Your task to perform on an android device: Open the stopwatch Image 0: 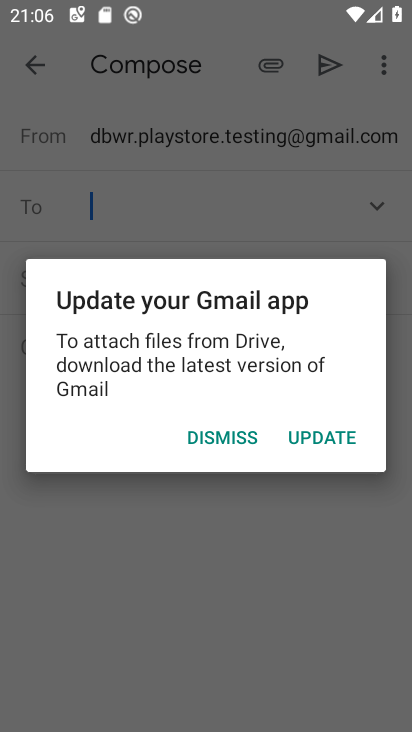
Step 0: press home button
Your task to perform on an android device: Open the stopwatch Image 1: 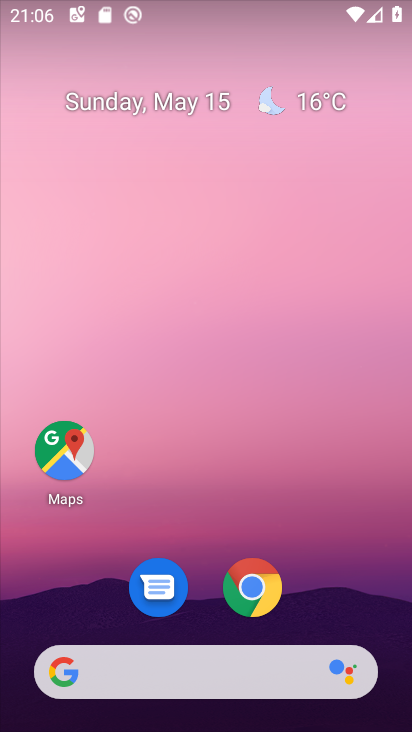
Step 1: drag from (307, 433) to (280, 114)
Your task to perform on an android device: Open the stopwatch Image 2: 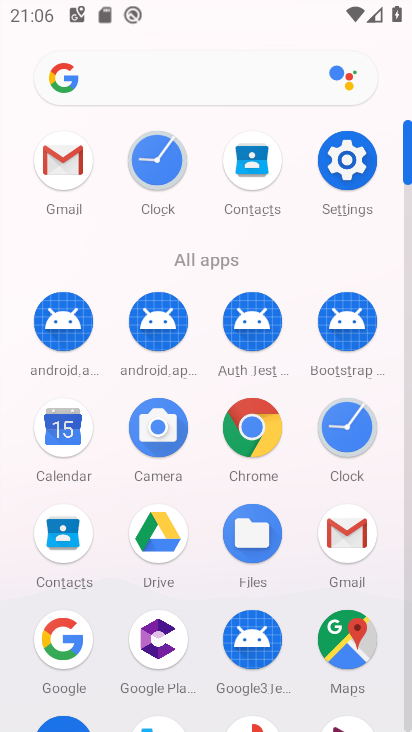
Step 2: click (152, 151)
Your task to perform on an android device: Open the stopwatch Image 3: 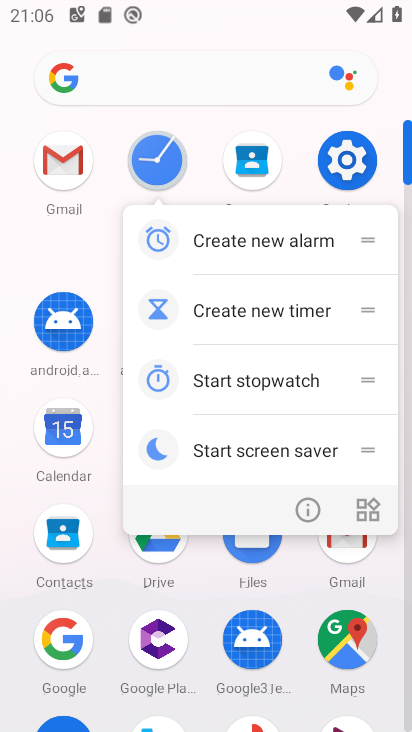
Step 3: click (157, 164)
Your task to perform on an android device: Open the stopwatch Image 4: 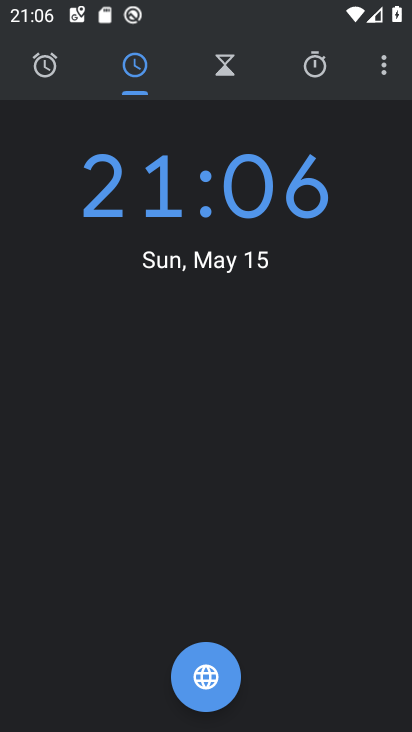
Step 4: click (328, 72)
Your task to perform on an android device: Open the stopwatch Image 5: 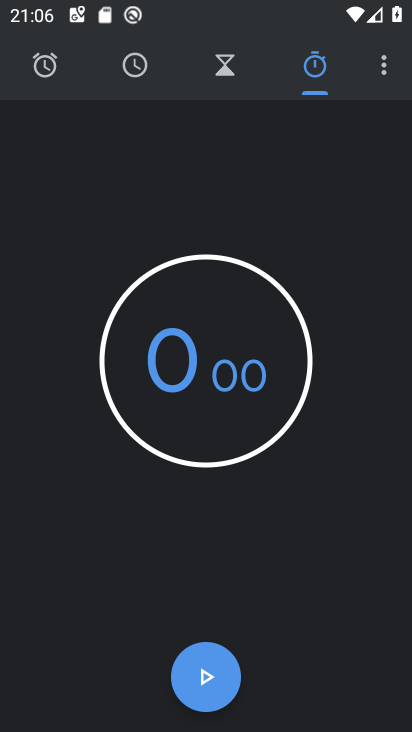
Step 5: task complete